Your task to perform on an android device: Go to calendar. Show me events next week Image 0: 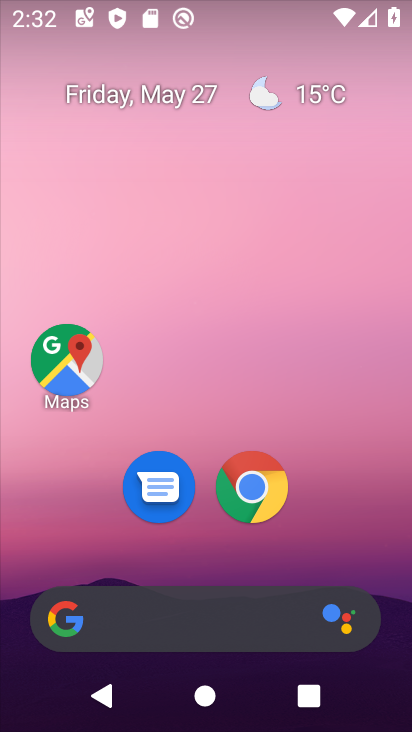
Step 0: click (188, 89)
Your task to perform on an android device: Go to calendar. Show me events next week Image 1: 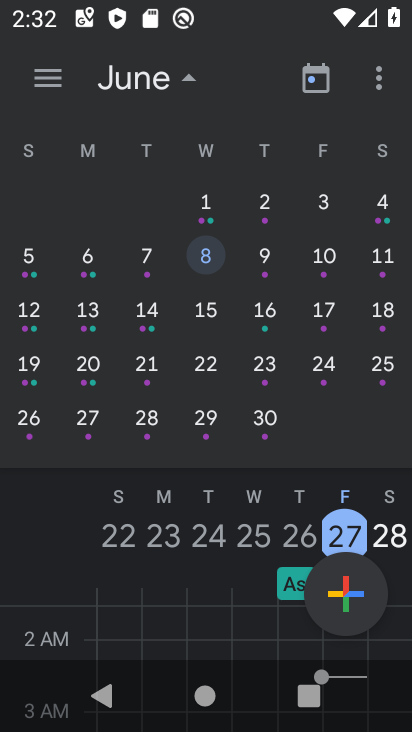
Step 1: click (157, 69)
Your task to perform on an android device: Go to calendar. Show me events next week Image 2: 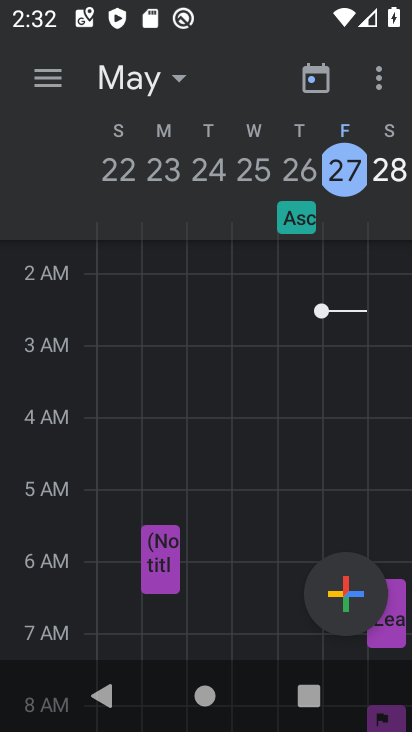
Step 2: click (181, 90)
Your task to perform on an android device: Go to calendar. Show me events next week Image 3: 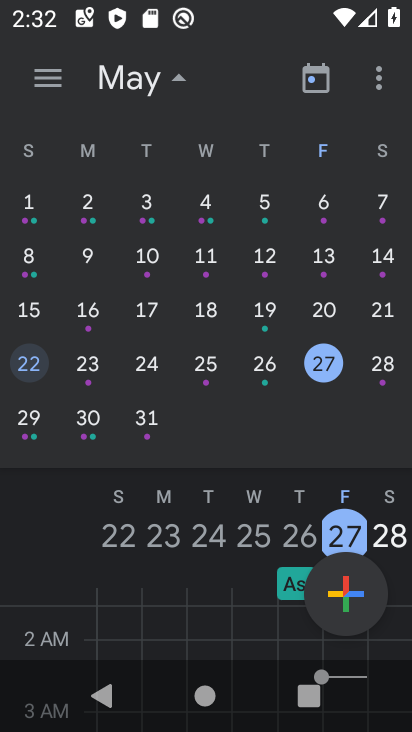
Step 3: click (101, 420)
Your task to perform on an android device: Go to calendar. Show me events next week Image 4: 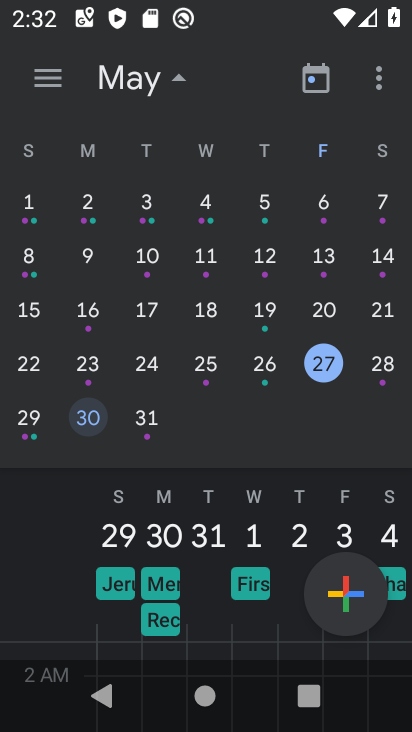
Step 4: task complete